Your task to perform on an android device: Open Chrome and go to settings Image 0: 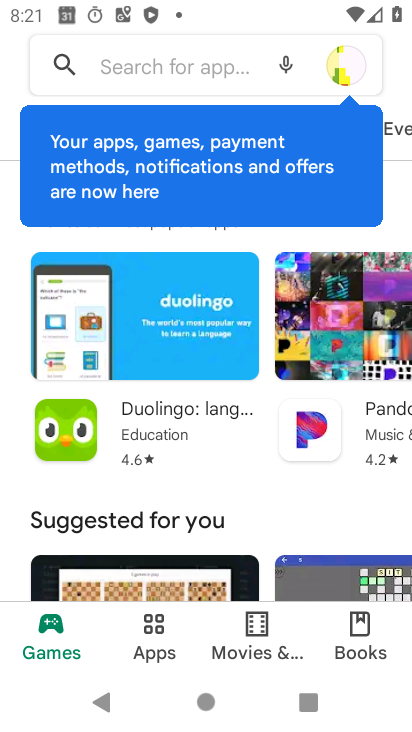
Step 0: press back button
Your task to perform on an android device: Open Chrome and go to settings Image 1: 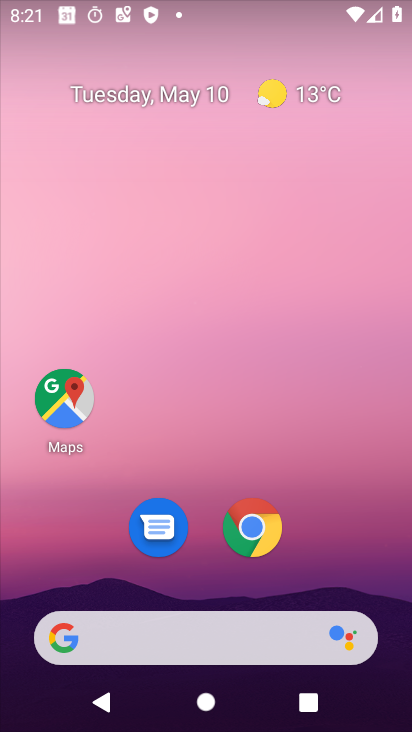
Step 1: click (251, 528)
Your task to perform on an android device: Open Chrome and go to settings Image 2: 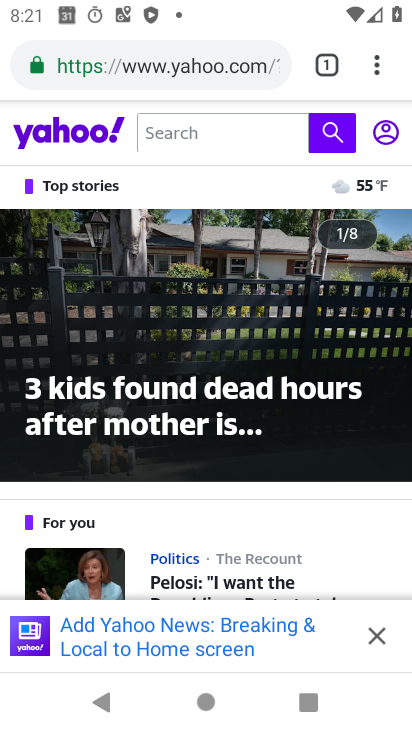
Step 2: click (364, 71)
Your task to perform on an android device: Open Chrome and go to settings Image 3: 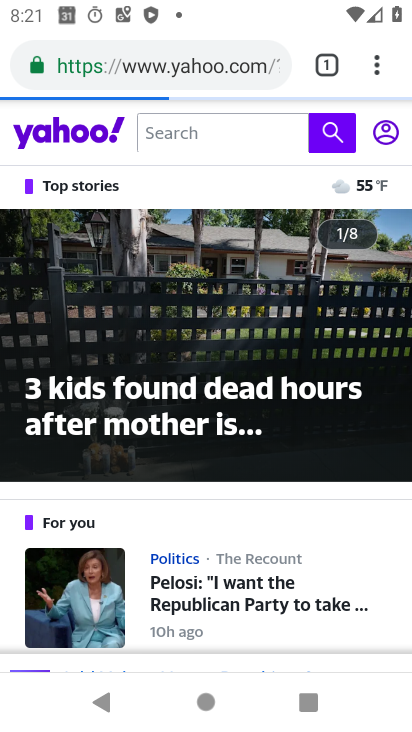
Step 3: click (365, 69)
Your task to perform on an android device: Open Chrome and go to settings Image 4: 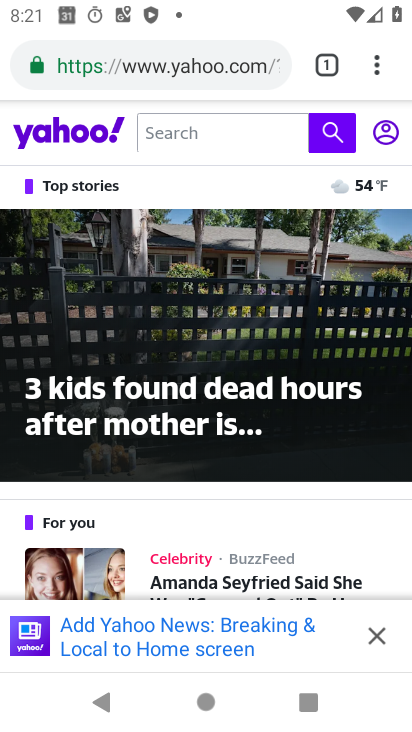
Step 4: click (368, 65)
Your task to perform on an android device: Open Chrome and go to settings Image 5: 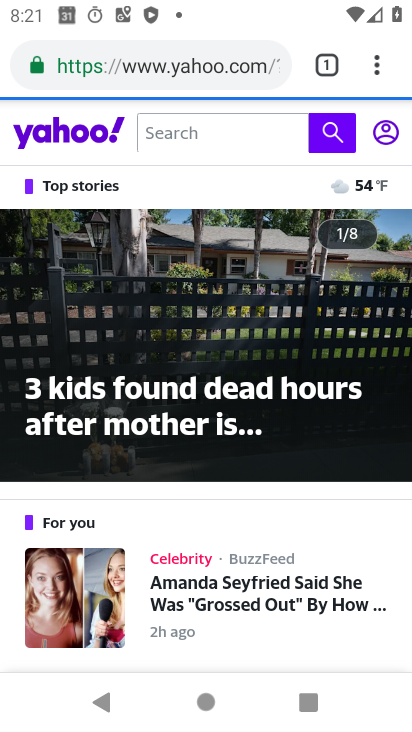
Step 5: click (375, 63)
Your task to perform on an android device: Open Chrome and go to settings Image 6: 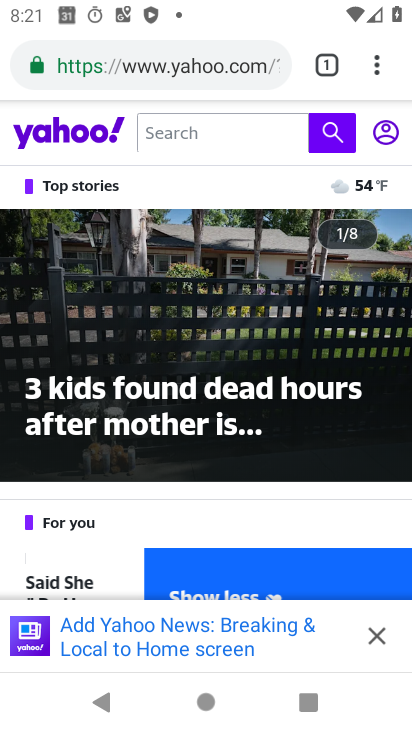
Step 6: click (367, 61)
Your task to perform on an android device: Open Chrome and go to settings Image 7: 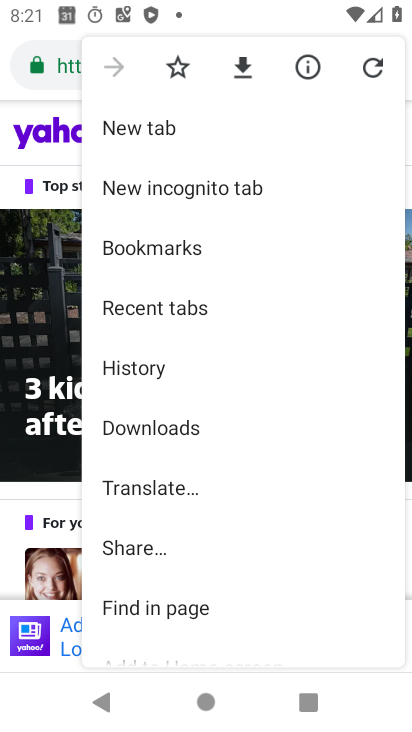
Step 7: drag from (173, 659) to (285, 106)
Your task to perform on an android device: Open Chrome and go to settings Image 8: 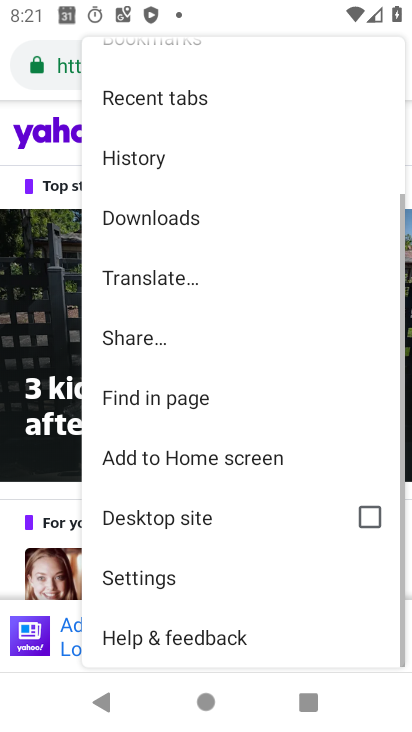
Step 8: click (154, 577)
Your task to perform on an android device: Open Chrome and go to settings Image 9: 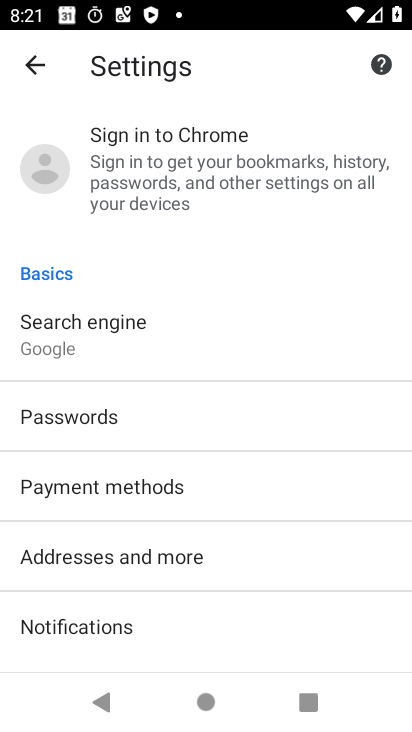
Step 9: task complete